Your task to perform on an android device: change the upload size in google photos Image 0: 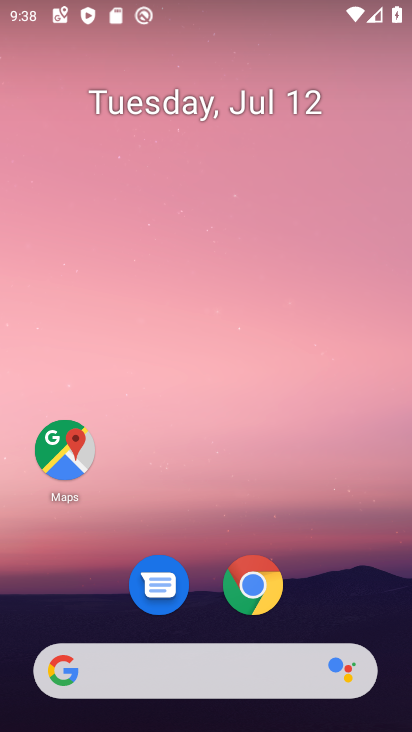
Step 0: press home button
Your task to perform on an android device: change the upload size in google photos Image 1: 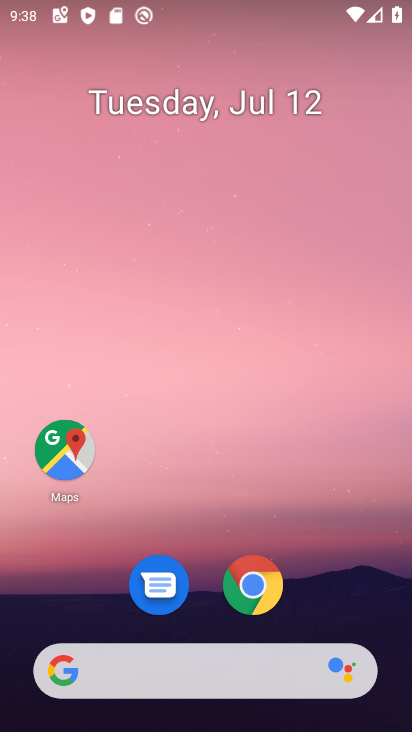
Step 1: drag from (222, 666) to (267, 142)
Your task to perform on an android device: change the upload size in google photos Image 2: 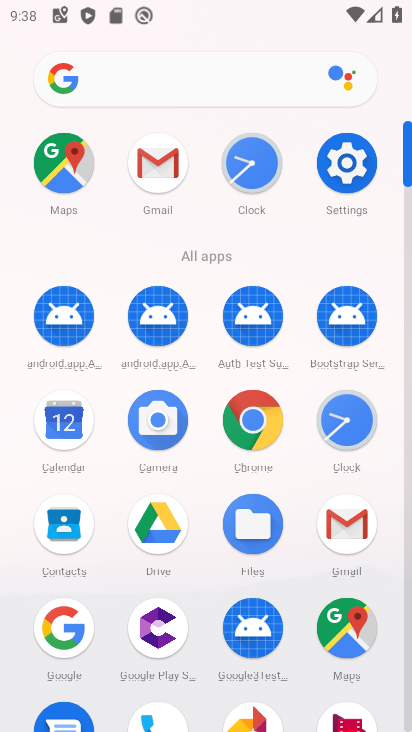
Step 2: drag from (203, 636) to (292, 251)
Your task to perform on an android device: change the upload size in google photos Image 3: 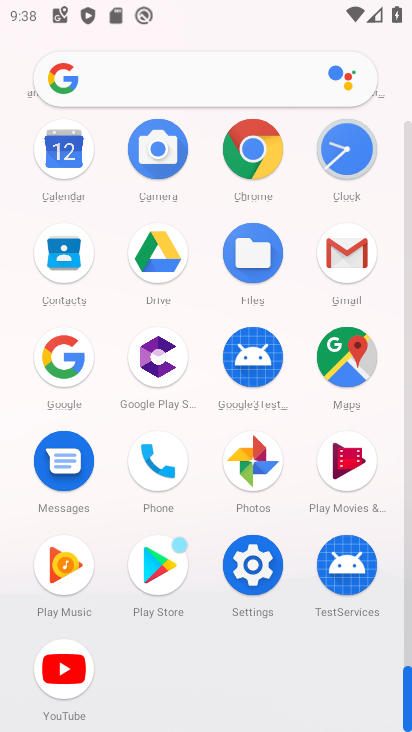
Step 3: click (255, 466)
Your task to perform on an android device: change the upload size in google photos Image 4: 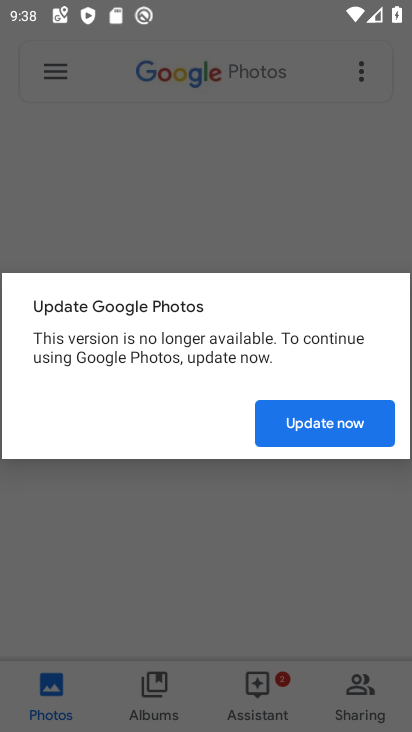
Step 4: click (299, 428)
Your task to perform on an android device: change the upload size in google photos Image 5: 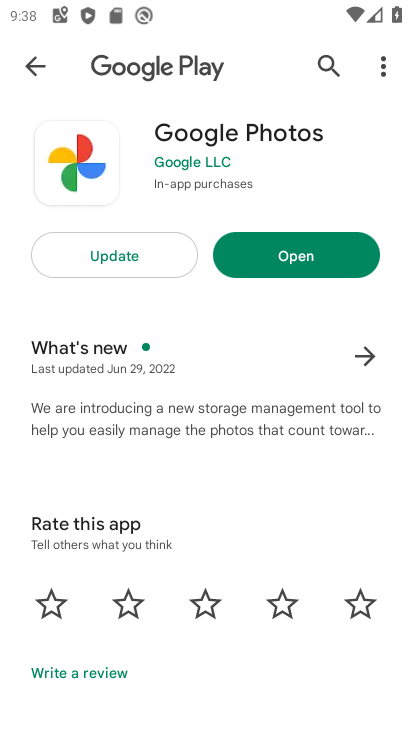
Step 5: click (313, 257)
Your task to perform on an android device: change the upload size in google photos Image 6: 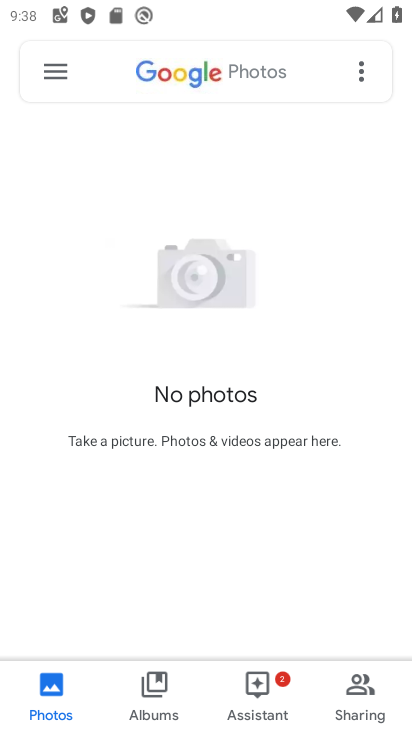
Step 6: click (49, 74)
Your task to perform on an android device: change the upload size in google photos Image 7: 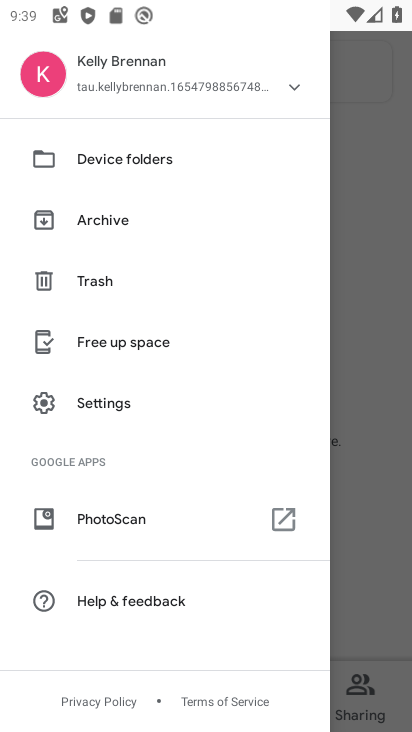
Step 7: click (111, 403)
Your task to perform on an android device: change the upload size in google photos Image 8: 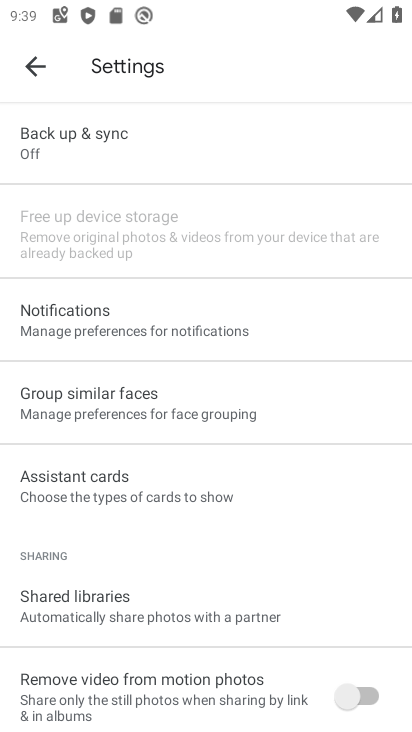
Step 8: click (140, 161)
Your task to perform on an android device: change the upload size in google photos Image 9: 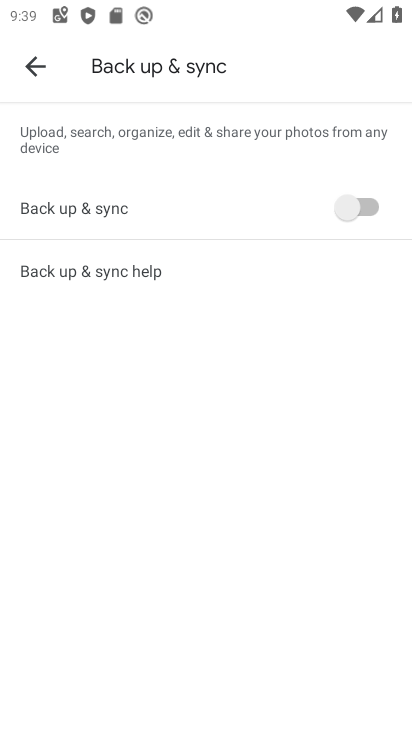
Step 9: click (368, 206)
Your task to perform on an android device: change the upload size in google photos Image 10: 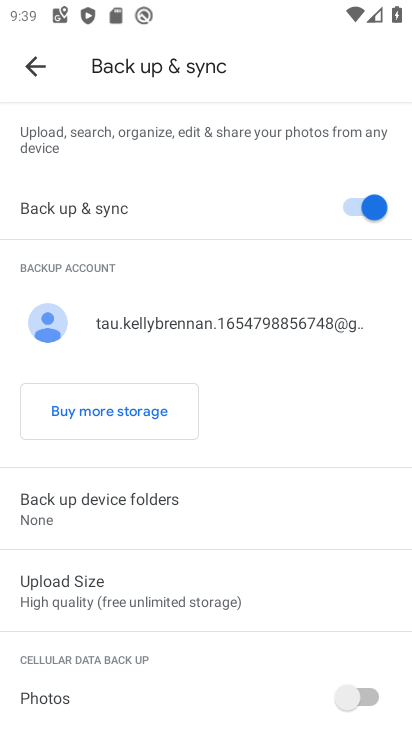
Step 10: click (107, 583)
Your task to perform on an android device: change the upload size in google photos Image 11: 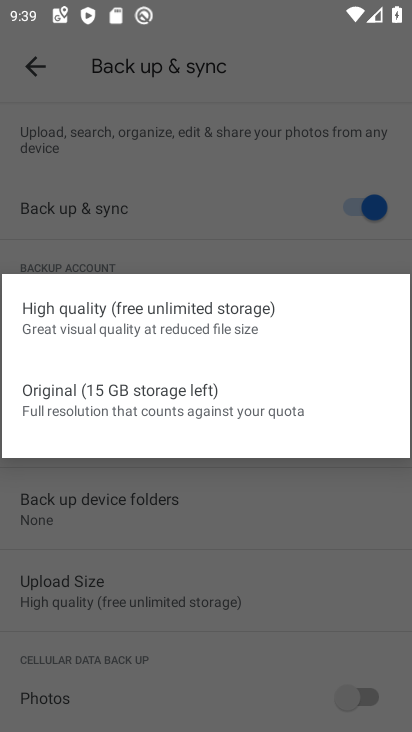
Step 11: click (123, 398)
Your task to perform on an android device: change the upload size in google photos Image 12: 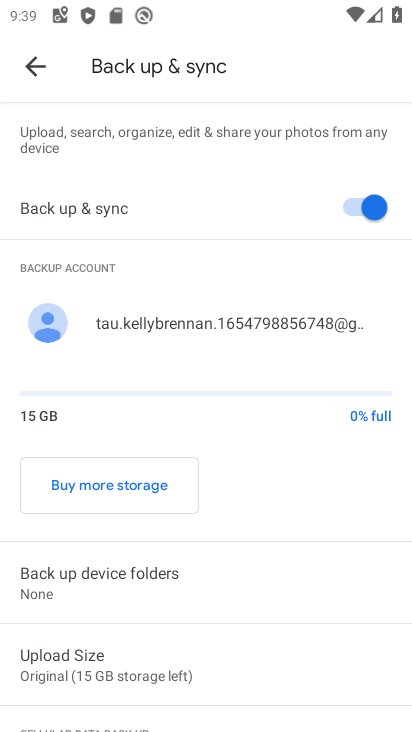
Step 12: task complete